Your task to perform on an android device: Open my contact list Image 0: 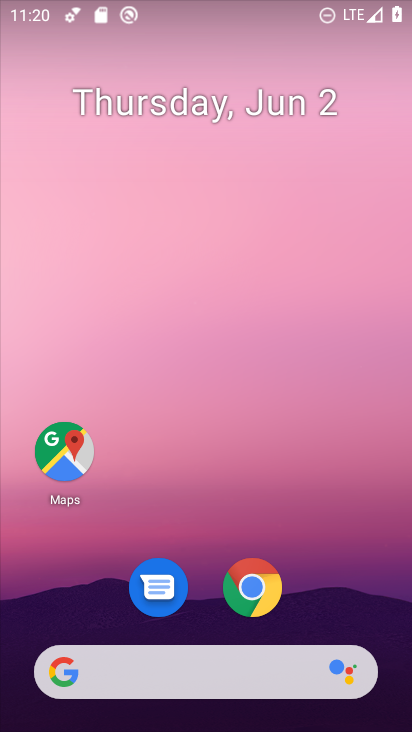
Step 0: drag from (366, 597) to (319, 171)
Your task to perform on an android device: Open my contact list Image 1: 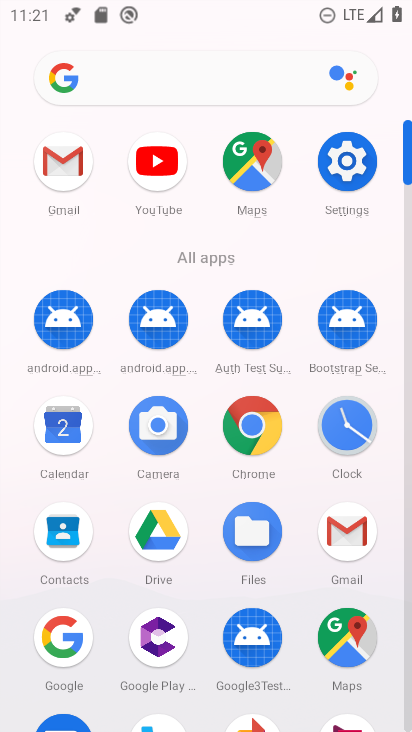
Step 1: click (63, 558)
Your task to perform on an android device: Open my contact list Image 2: 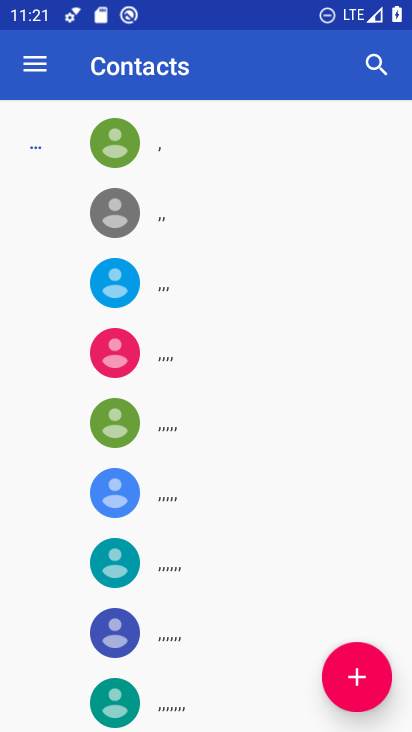
Step 2: task complete